Your task to perform on an android device: toggle notification dots Image 0: 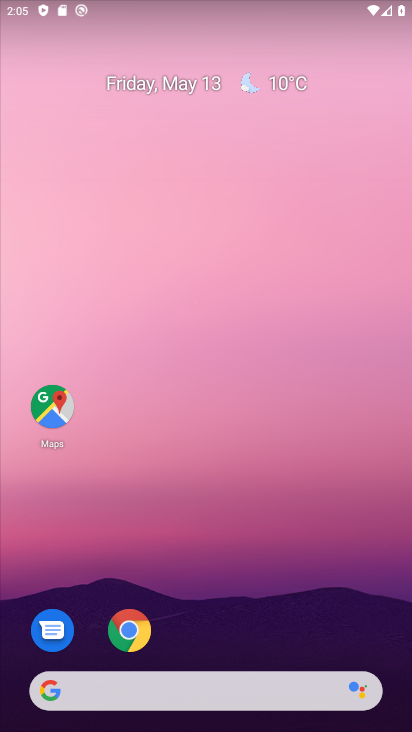
Step 0: drag from (218, 640) to (251, 69)
Your task to perform on an android device: toggle notification dots Image 1: 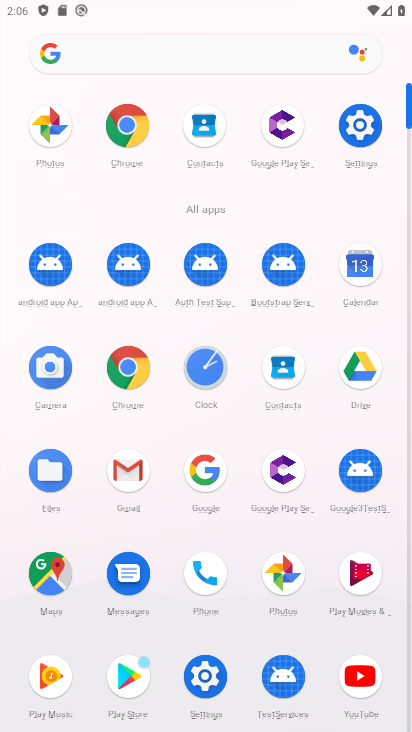
Step 1: click (359, 120)
Your task to perform on an android device: toggle notification dots Image 2: 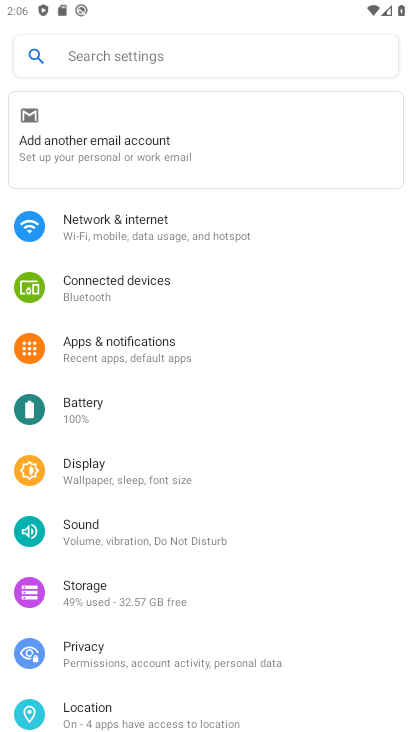
Step 2: click (190, 344)
Your task to perform on an android device: toggle notification dots Image 3: 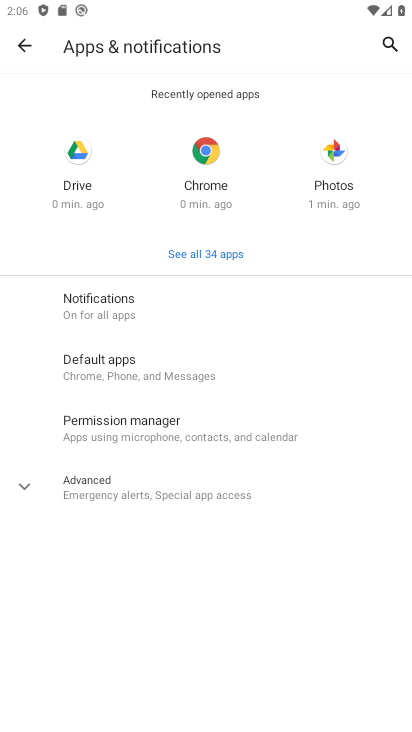
Step 3: click (148, 298)
Your task to perform on an android device: toggle notification dots Image 4: 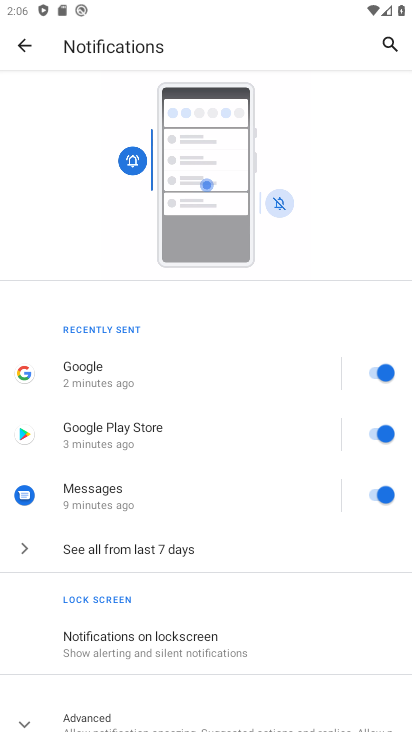
Step 4: click (148, 710)
Your task to perform on an android device: toggle notification dots Image 5: 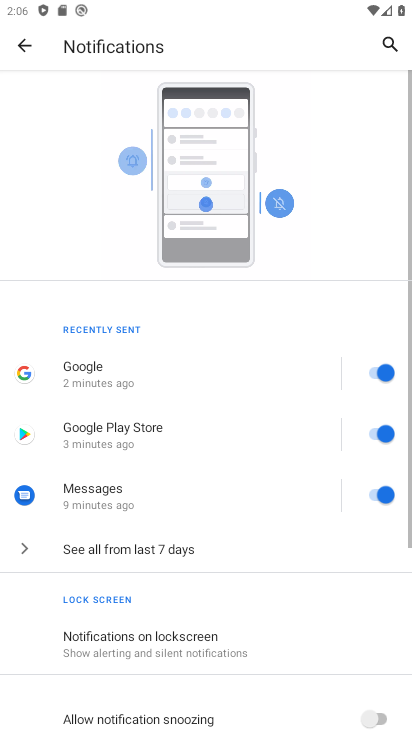
Step 5: drag from (163, 696) to (216, 124)
Your task to perform on an android device: toggle notification dots Image 6: 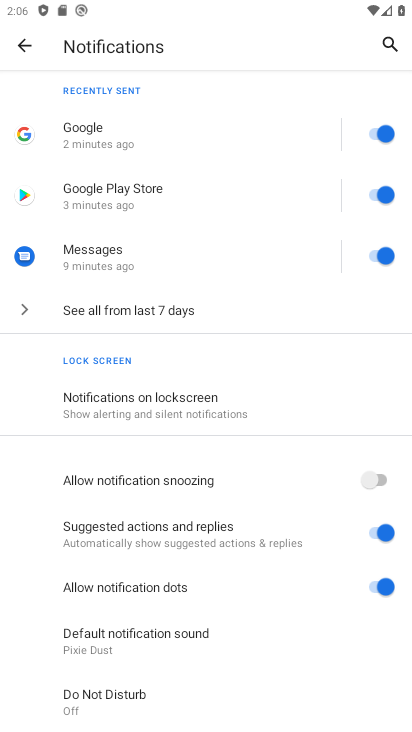
Step 6: click (374, 582)
Your task to perform on an android device: toggle notification dots Image 7: 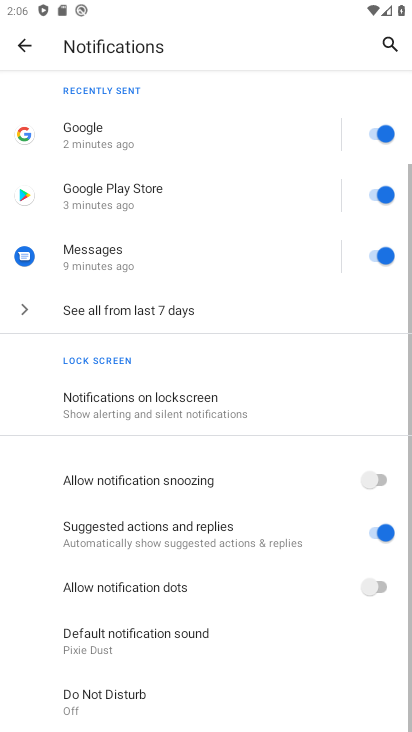
Step 7: task complete